Your task to perform on an android device: uninstall "Firefox Browser" Image 0: 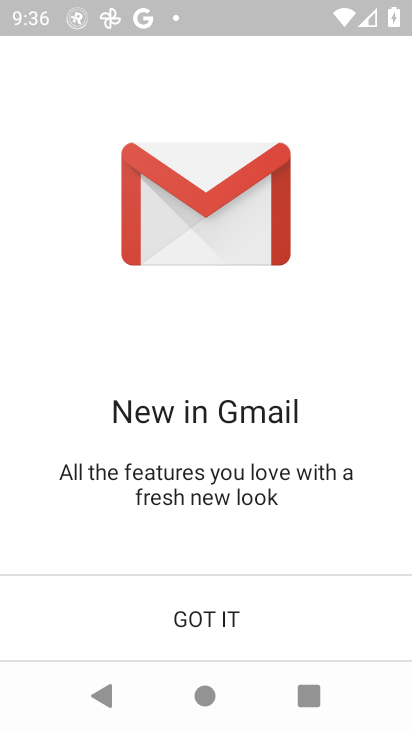
Step 0: press back button
Your task to perform on an android device: uninstall "Firefox Browser" Image 1: 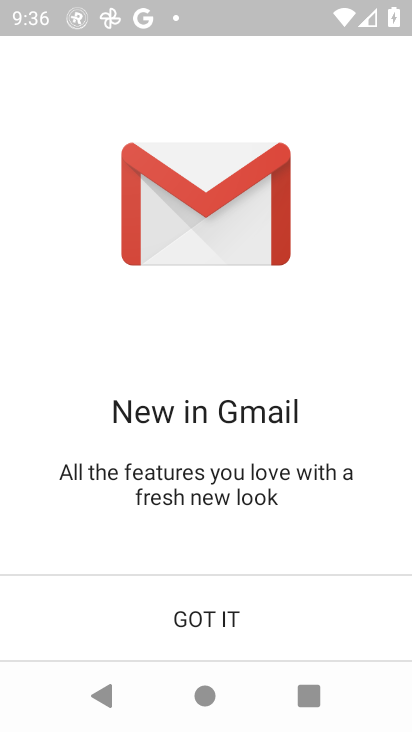
Step 1: press back button
Your task to perform on an android device: uninstall "Firefox Browser" Image 2: 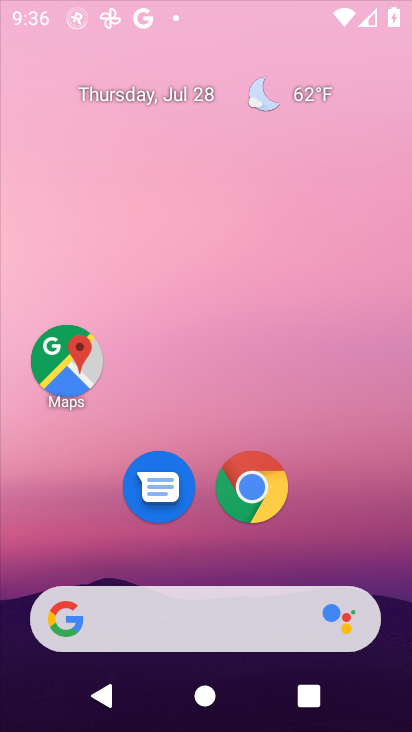
Step 2: press back button
Your task to perform on an android device: uninstall "Firefox Browser" Image 3: 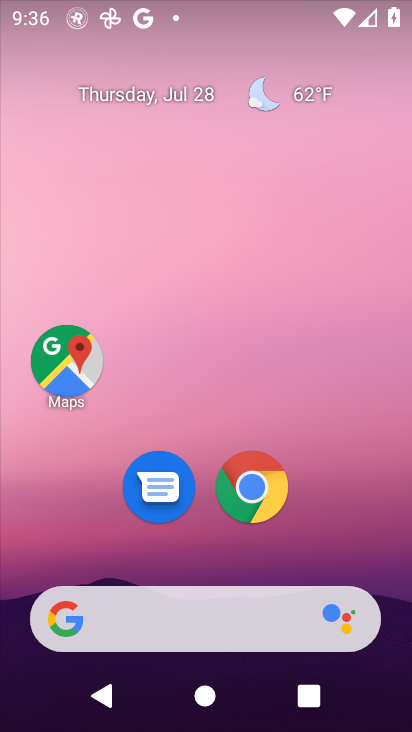
Step 3: drag from (229, 537) to (170, 134)
Your task to perform on an android device: uninstall "Firefox Browser" Image 4: 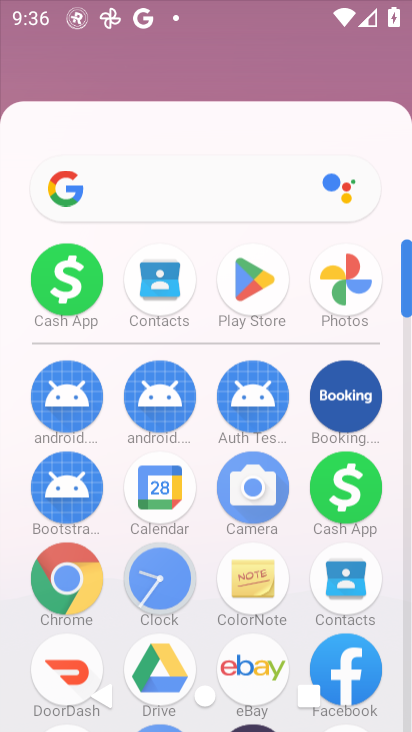
Step 4: drag from (227, 585) to (227, 111)
Your task to perform on an android device: uninstall "Firefox Browser" Image 5: 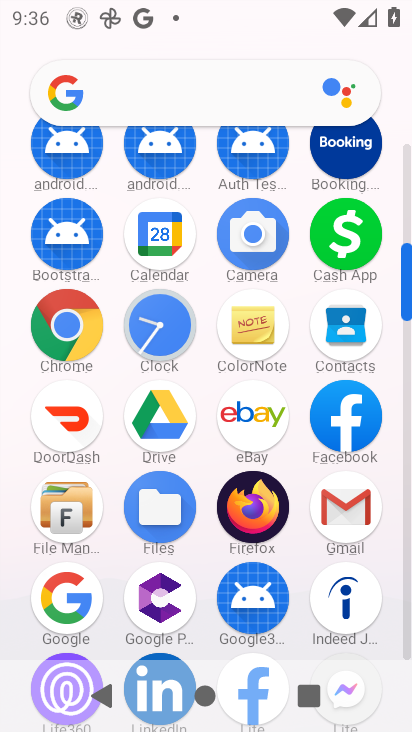
Step 5: drag from (242, 428) to (247, 133)
Your task to perform on an android device: uninstall "Firefox Browser" Image 6: 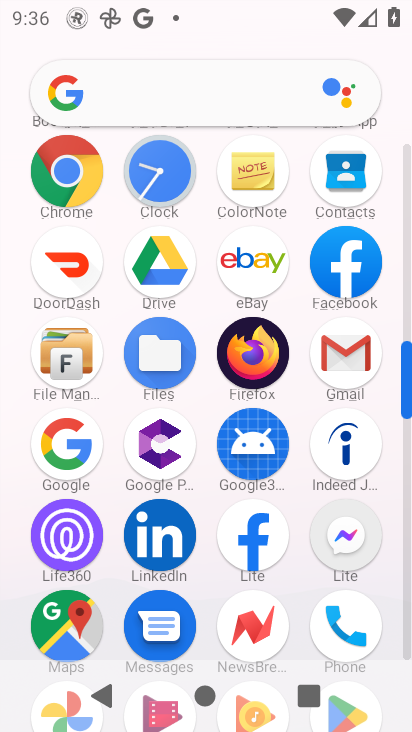
Step 6: drag from (264, 432) to (238, 13)
Your task to perform on an android device: uninstall "Firefox Browser" Image 7: 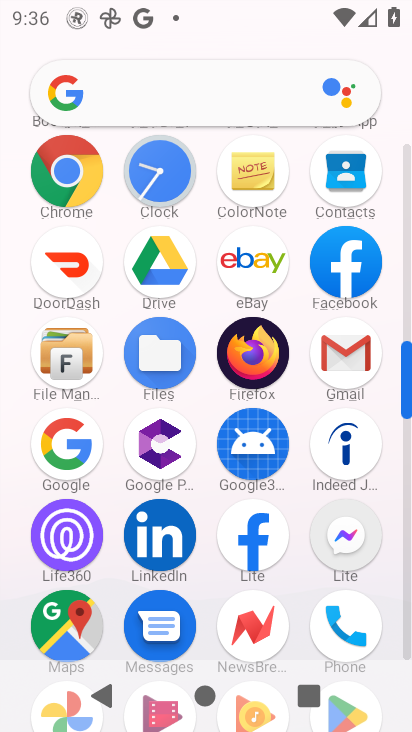
Step 7: drag from (280, 214) to (323, 507)
Your task to perform on an android device: uninstall "Firefox Browser" Image 8: 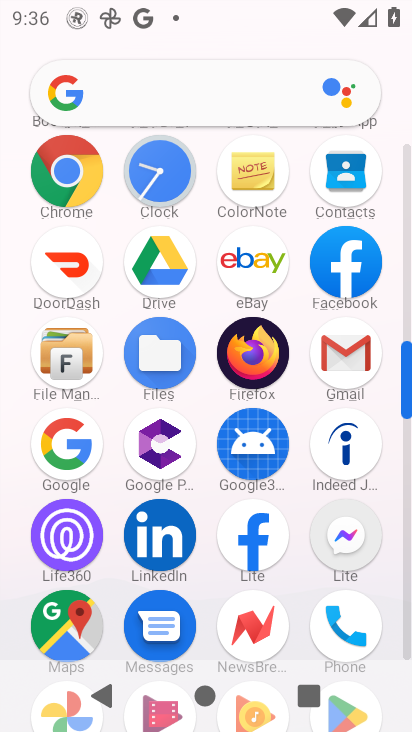
Step 8: drag from (284, 293) to (303, 479)
Your task to perform on an android device: uninstall "Firefox Browser" Image 9: 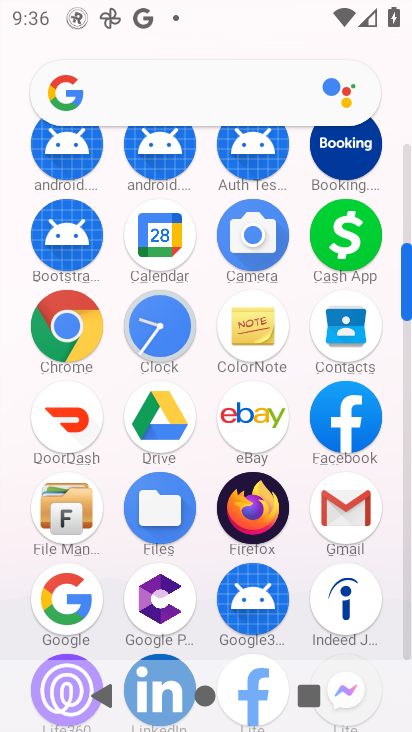
Step 9: drag from (278, 202) to (273, 546)
Your task to perform on an android device: uninstall "Firefox Browser" Image 10: 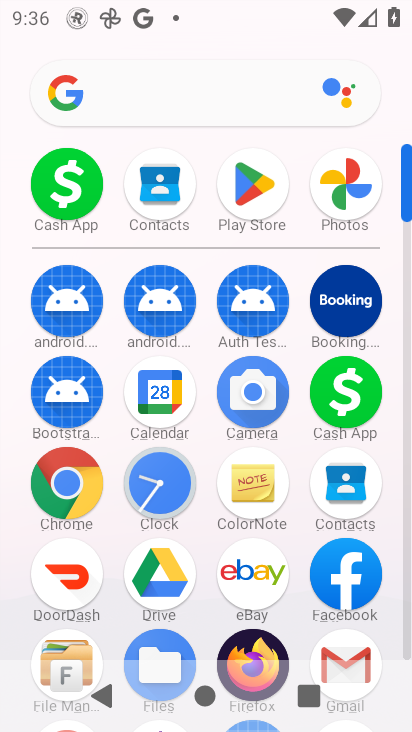
Step 10: click (249, 187)
Your task to perform on an android device: uninstall "Firefox Browser" Image 11: 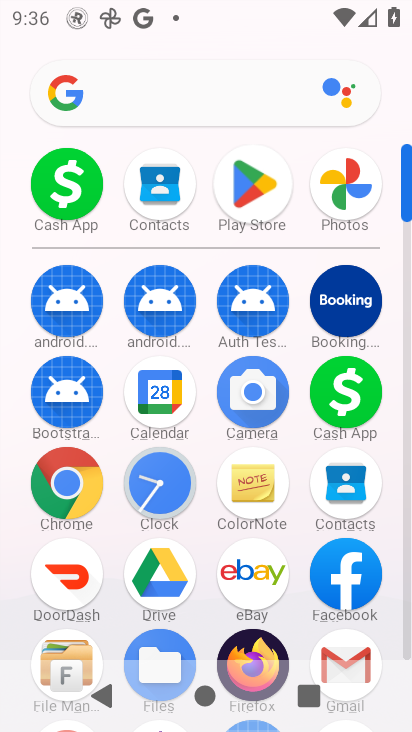
Step 11: click (249, 187)
Your task to perform on an android device: uninstall "Firefox Browser" Image 12: 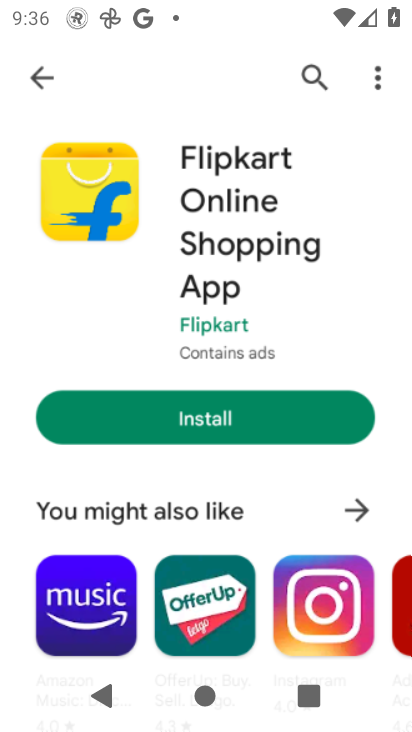
Step 12: click (251, 189)
Your task to perform on an android device: uninstall "Firefox Browser" Image 13: 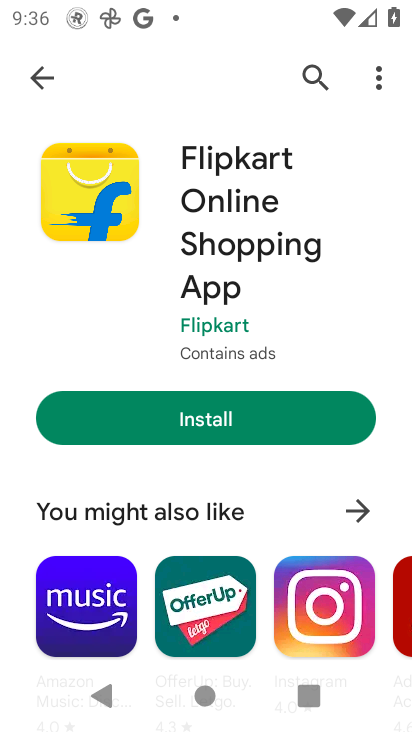
Step 13: click (47, 82)
Your task to perform on an android device: uninstall "Firefox Browser" Image 14: 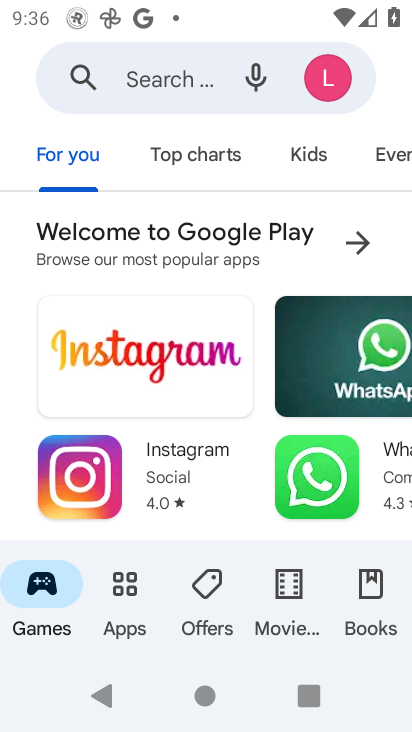
Step 14: click (137, 73)
Your task to perform on an android device: uninstall "Firefox Browser" Image 15: 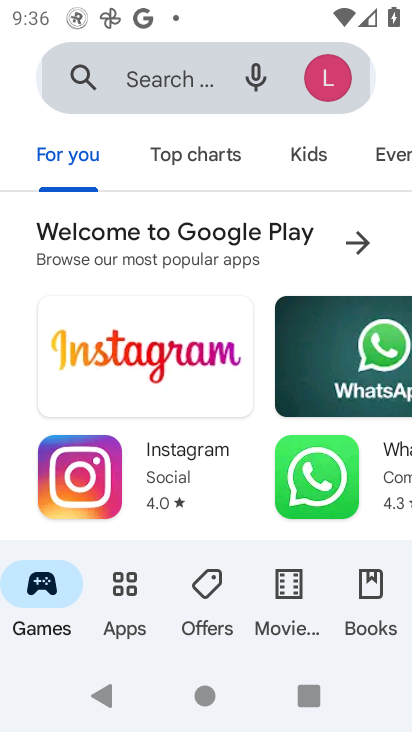
Step 15: click (141, 71)
Your task to perform on an android device: uninstall "Firefox Browser" Image 16: 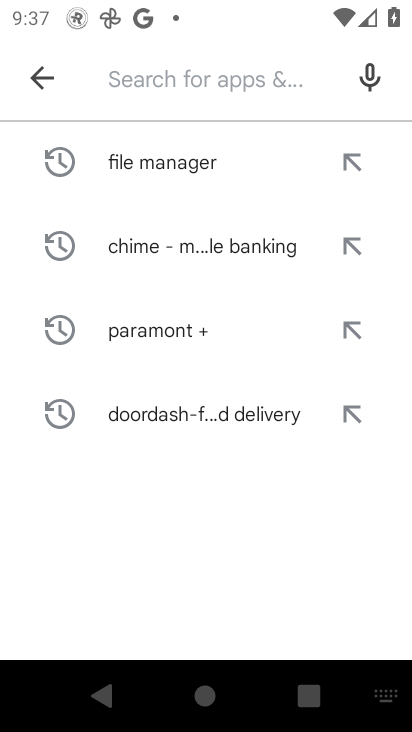
Step 16: type "Firefox Browser"
Your task to perform on an android device: uninstall "Firefox Browser" Image 17: 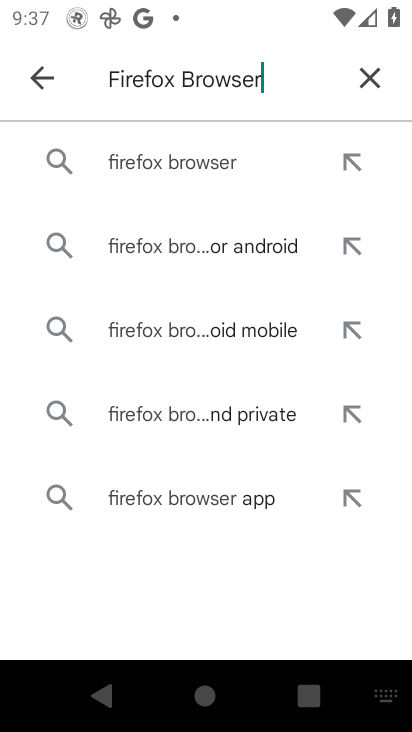
Step 17: click (172, 146)
Your task to perform on an android device: uninstall "Firefox Browser" Image 18: 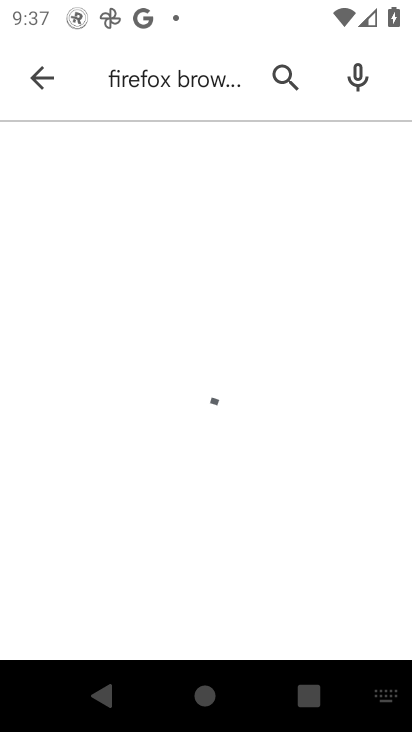
Step 18: click (181, 154)
Your task to perform on an android device: uninstall "Firefox Browser" Image 19: 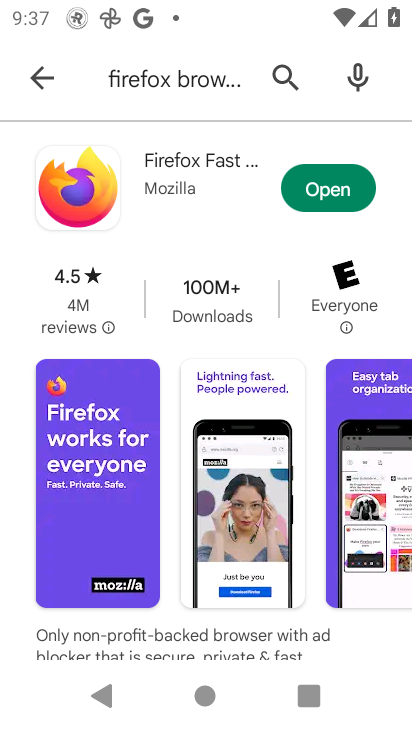
Step 19: click (327, 192)
Your task to perform on an android device: uninstall "Firefox Browser" Image 20: 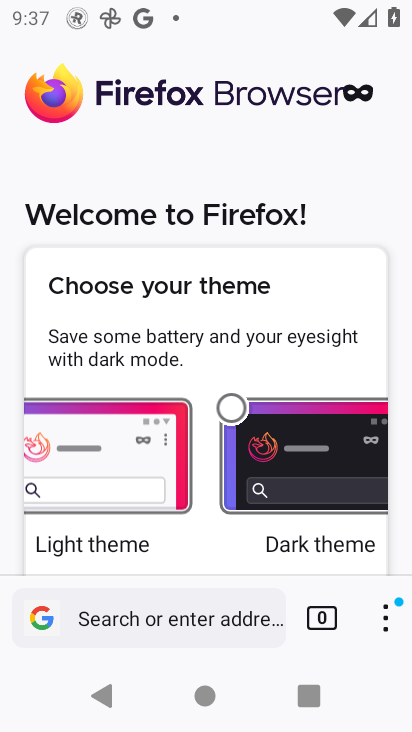
Step 20: task complete